Your task to perform on an android device: turn off location Image 0: 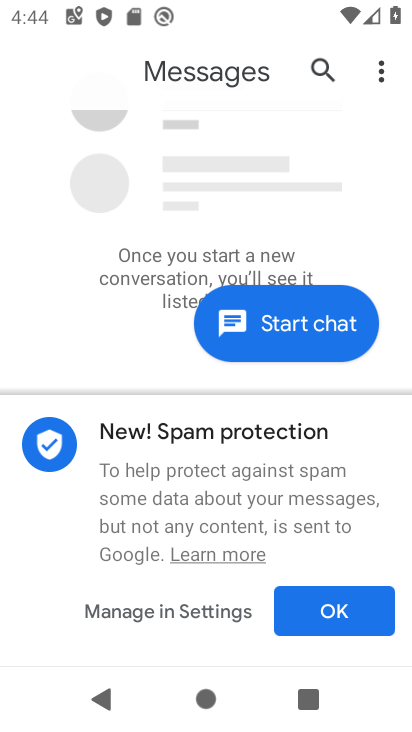
Step 0: press home button
Your task to perform on an android device: turn off location Image 1: 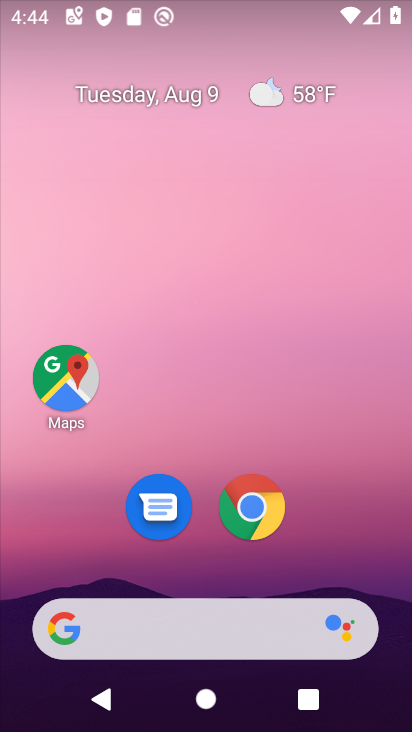
Step 1: drag from (325, 549) to (264, 87)
Your task to perform on an android device: turn off location Image 2: 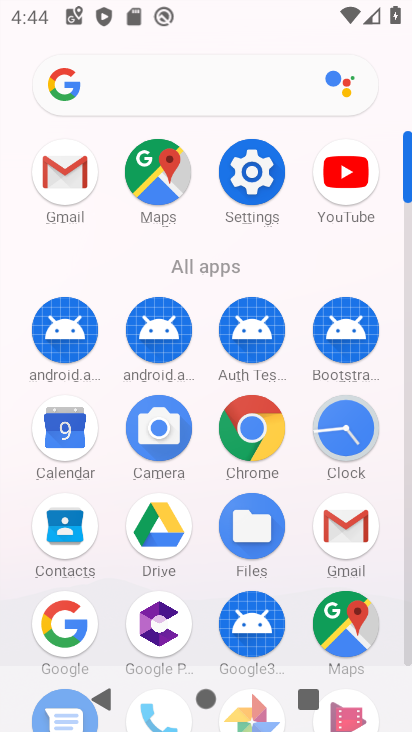
Step 2: click (250, 181)
Your task to perform on an android device: turn off location Image 3: 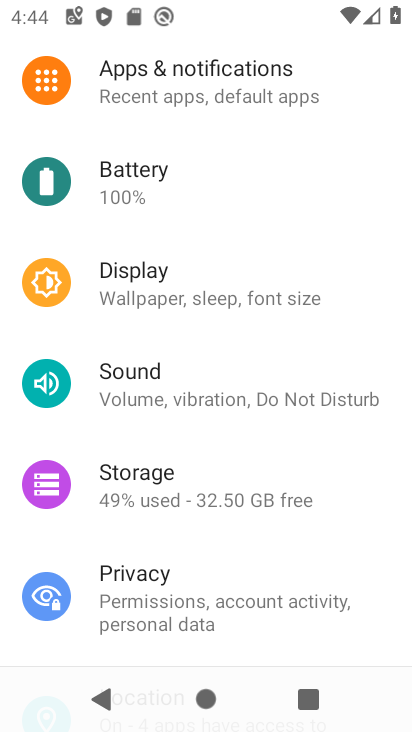
Step 3: drag from (159, 395) to (157, 201)
Your task to perform on an android device: turn off location Image 4: 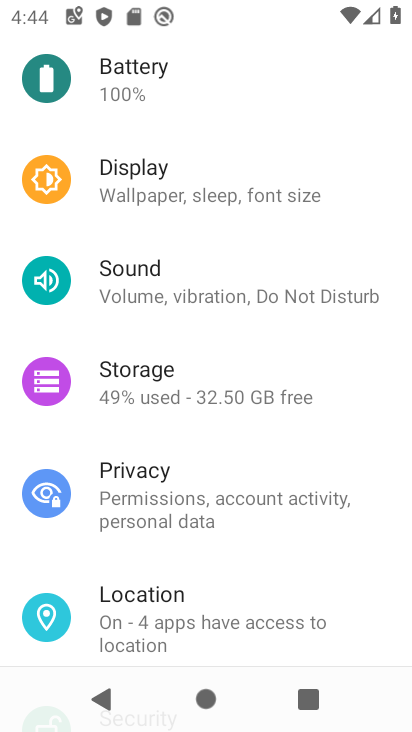
Step 4: click (131, 614)
Your task to perform on an android device: turn off location Image 5: 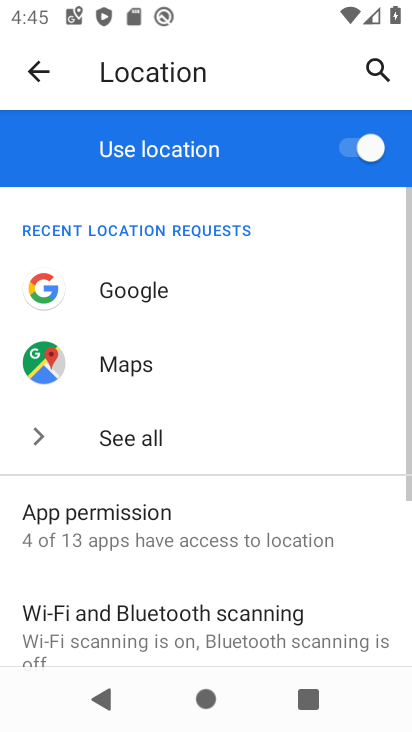
Step 5: click (353, 152)
Your task to perform on an android device: turn off location Image 6: 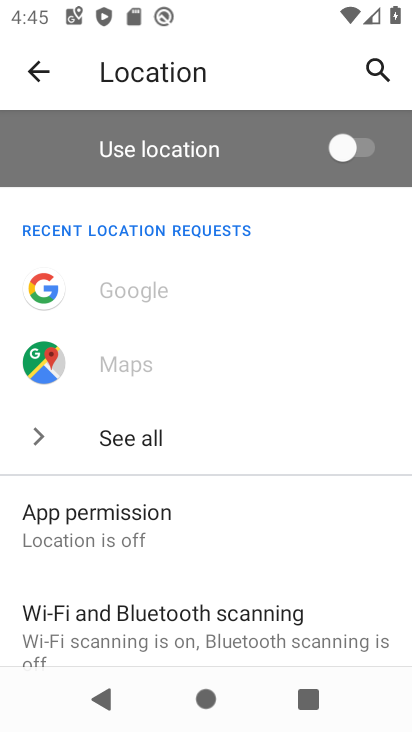
Step 6: task complete